Your task to perform on an android device: Open Yahoo.com Image 0: 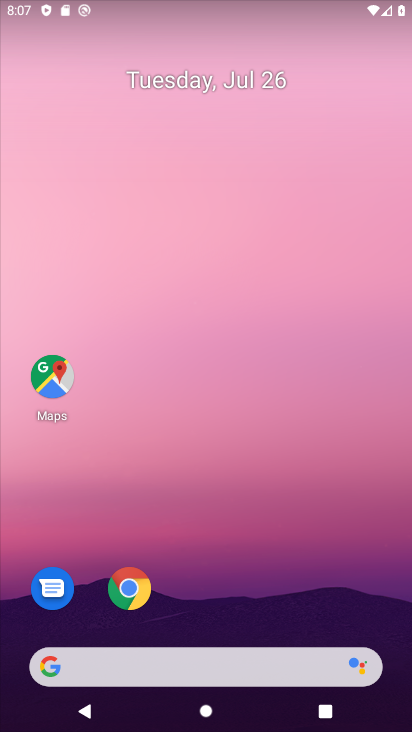
Step 0: drag from (189, 610) to (384, 91)
Your task to perform on an android device: Open Yahoo.com Image 1: 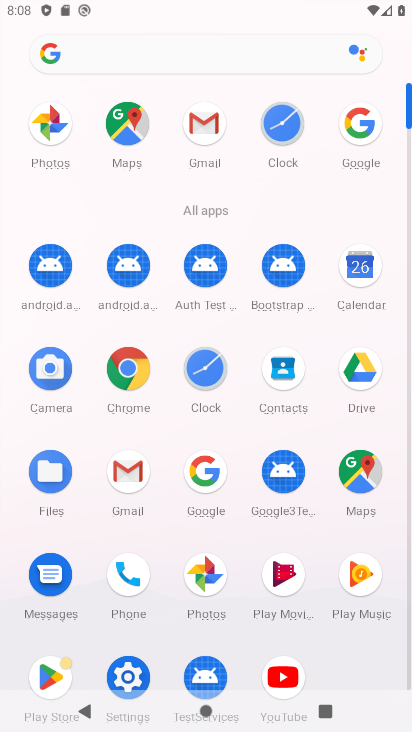
Step 1: click (192, 53)
Your task to perform on an android device: Open Yahoo.com Image 2: 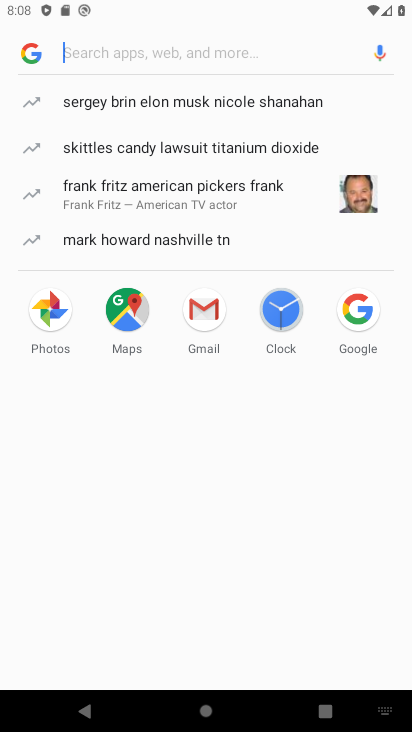
Step 2: click (85, 60)
Your task to perform on an android device: Open Yahoo.com Image 3: 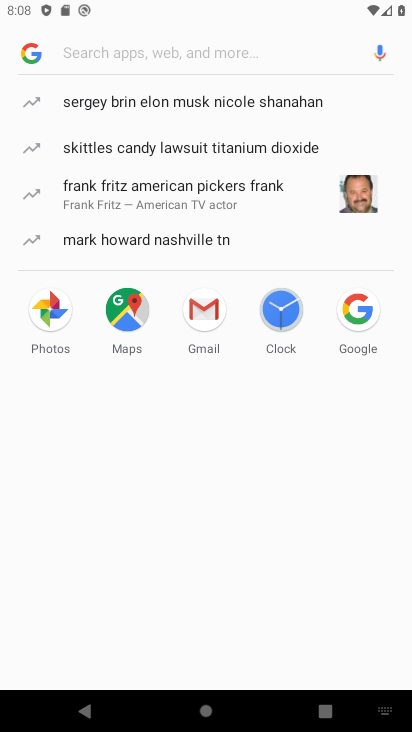
Step 3: type "Yahoo.com"
Your task to perform on an android device: Open Yahoo.com Image 4: 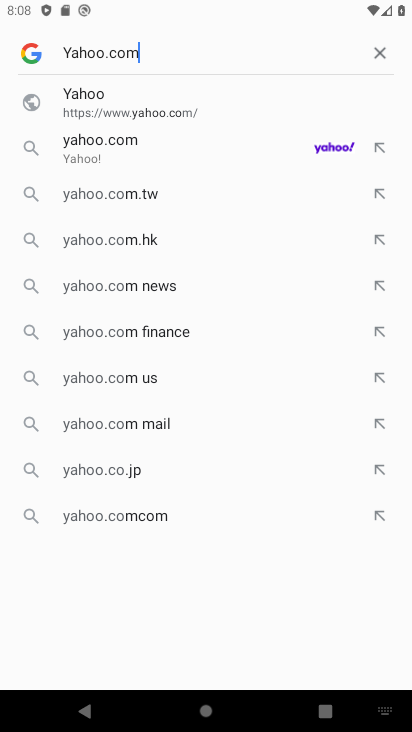
Step 4: type ""
Your task to perform on an android device: Open Yahoo.com Image 5: 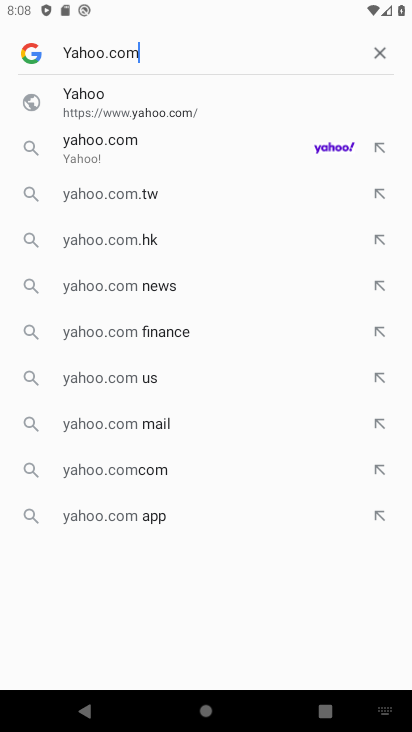
Step 5: click (169, 159)
Your task to perform on an android device: Open Yahoo.com Image 6: 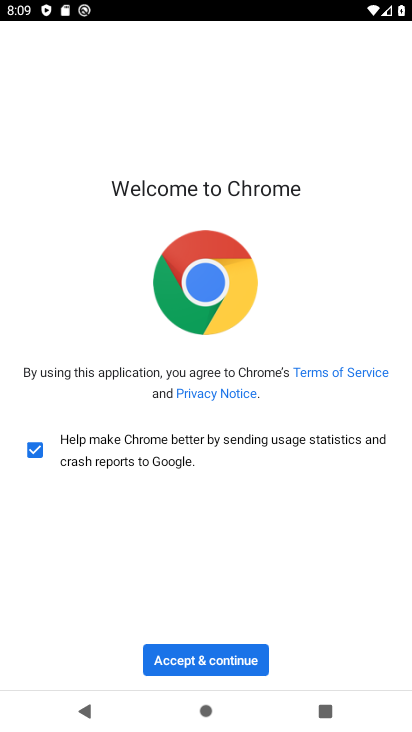
Step 6: click (201, 648)
Your task to perform on an android device: Open Yahoo.com Image 7: 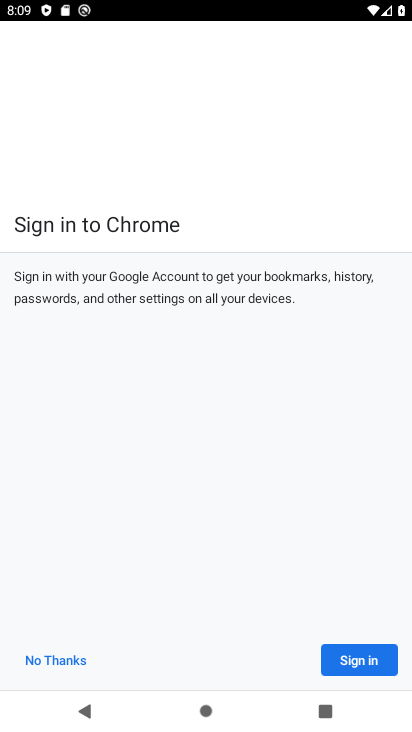
Step 7: click (36, 657)
Your task to perform on an android device: Open Yahoo.com Image 8: 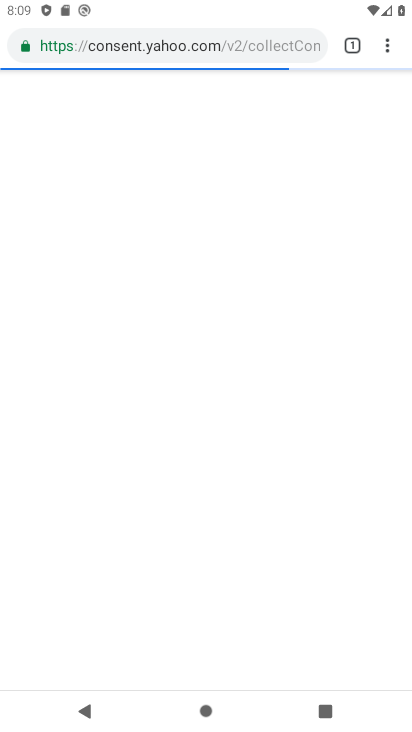
Step 8: task complete